Your task to perform on an android device: turn on the 24-hour format for clock Image 0: 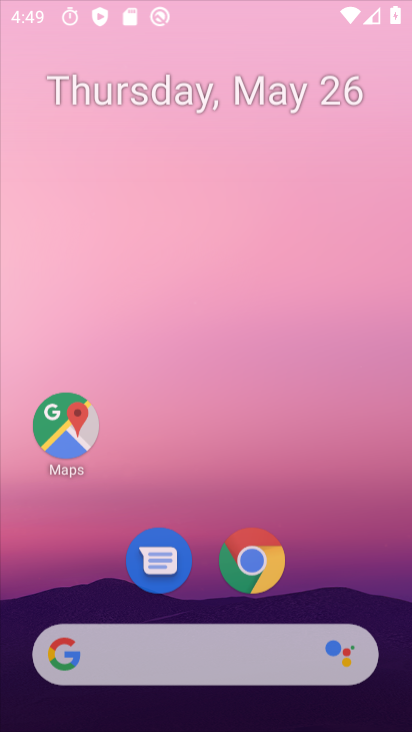
Step 0: click (246, 574)
Your task to perform on an android device: turn on the 24-hour format for clock Image 1: 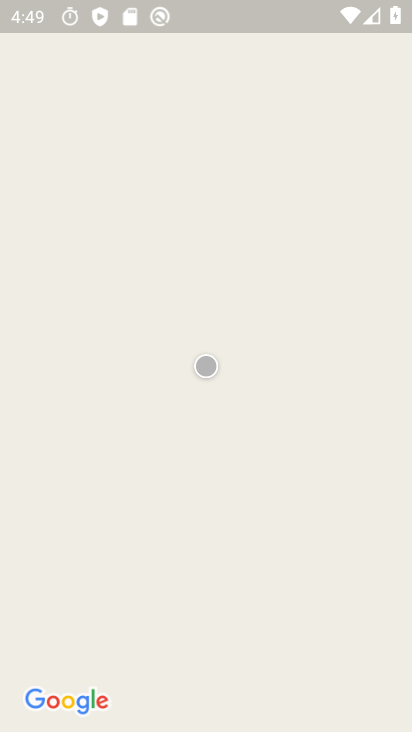
Step 1: press home button
Your task to perform on an android device: turn on the 24-hour format for clock Image 2: 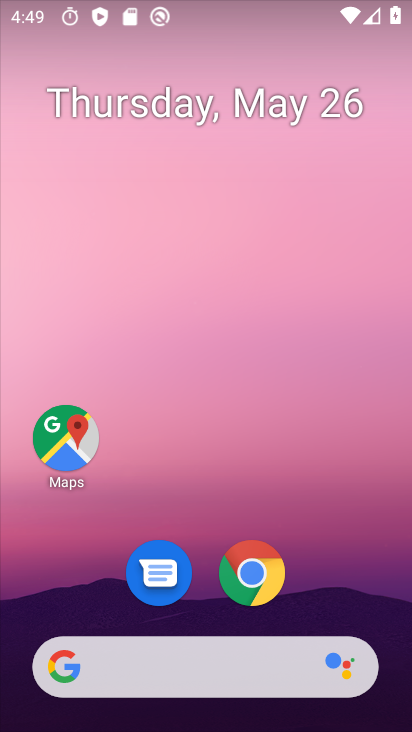
Step 2: drag from (324, 616) to (288, 180)
Your task to perform on an android device: turn on the 24-hour format for clock Image 3: 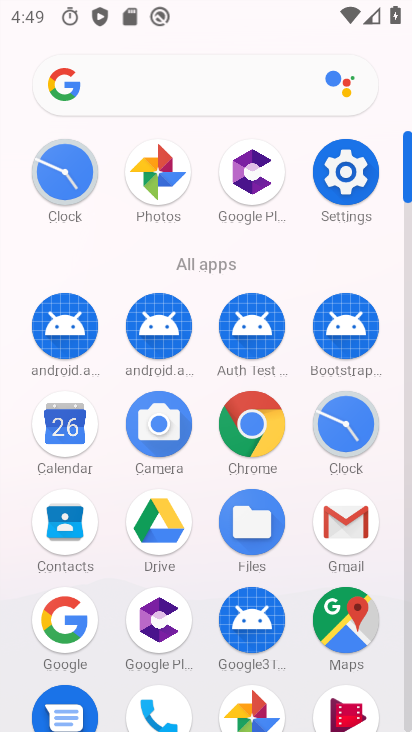
Step 3: click (342, 423)
Your task to perform on an android device: turn on the 24-hour format for clock Image 4: 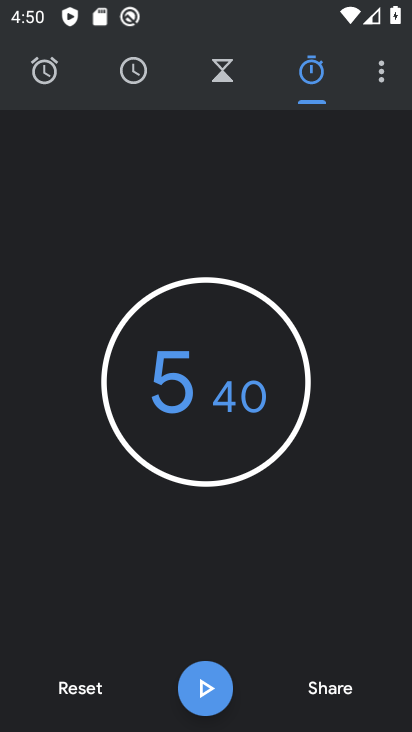
Step 4: click (379, 89)
Your task to perform on an android device: turn on the 24-hour format for clock Image 5: 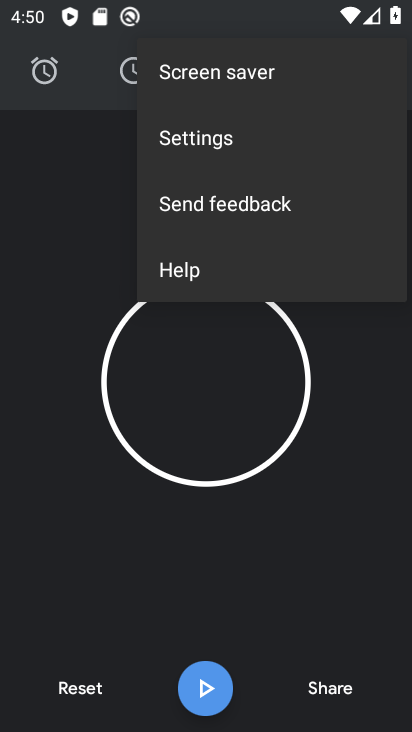
Step 5: click (255, 149)
Your task to perform on an android device: turn on the 24-hour format for clock Image 6: 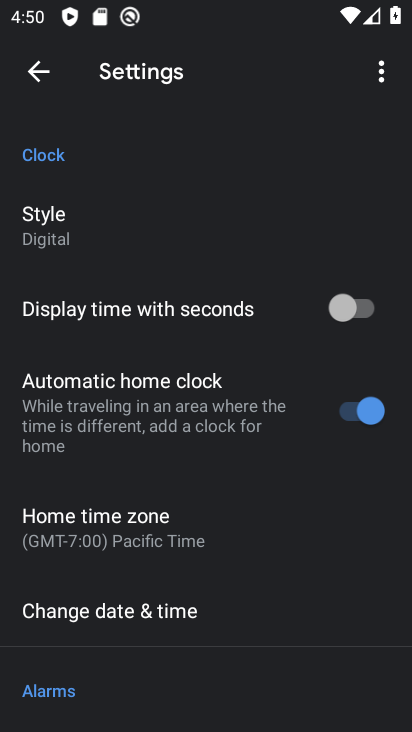
Step 6: click (154, 601)
Your task to perform on an android device: turn on the 24-hour format for clock Image 7: 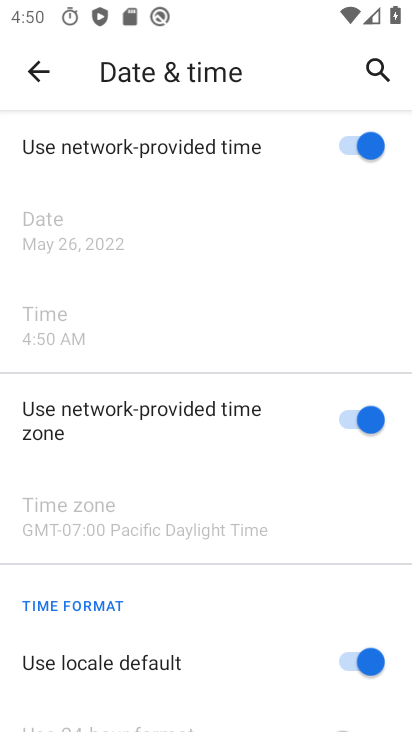
Step 7: drag from (211, 636) to (232, 326)
Your task to perform on an android device: turn on the 24-hour format for clock Image 8: 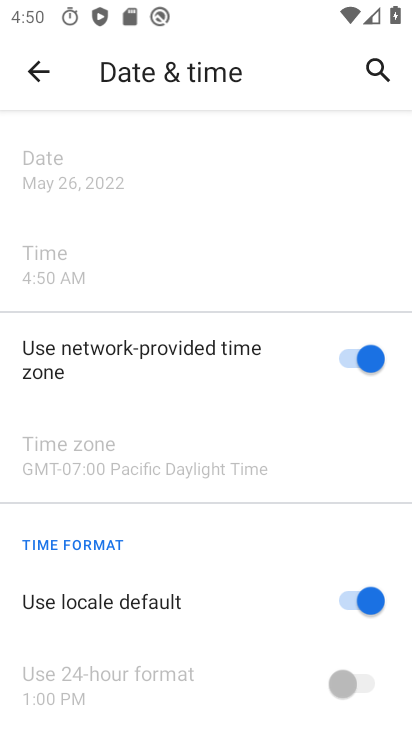
Step 8: click (349, 609)
Your task to perform on an android device: turn on the 24-hour format for clock Image 9: 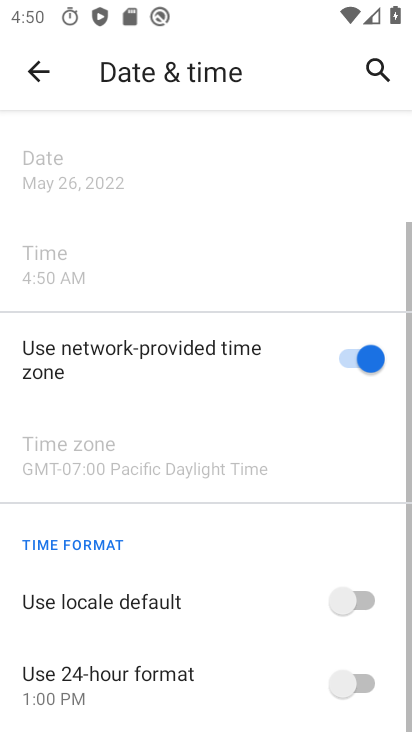
Step 9: click (365, 679)
Your task to perform on an android device: turn on the 24-hour format for clock Image 10: 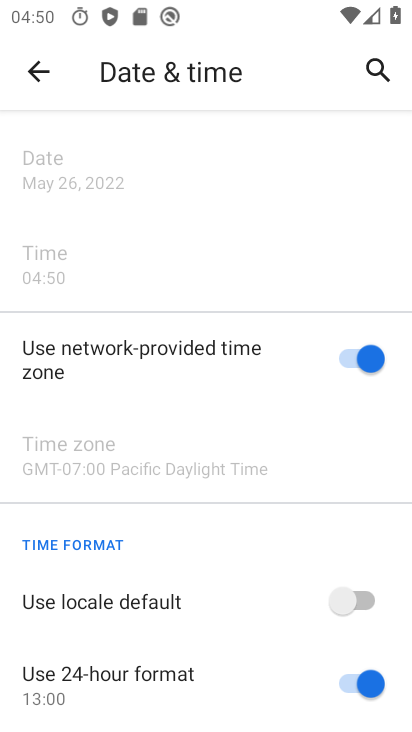
Step 10: task complete